Your task to perform on an android device: set the stopwatch Image 0: 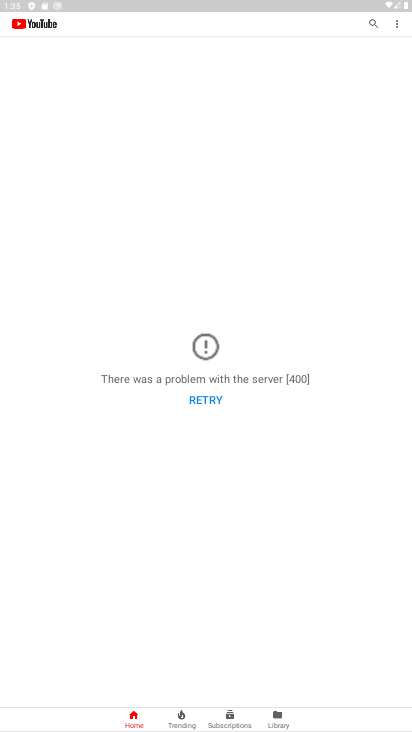
Step 0: press home button
Your task to perform on an android device: set the stopwatch Image 1: 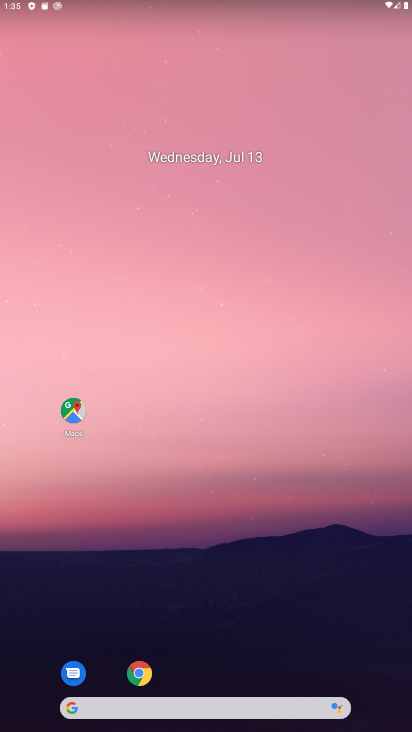
Step 1: drag from (243, 575) to (231, 188)
Your task to perform on an android device: set the stopwatch Image 2: 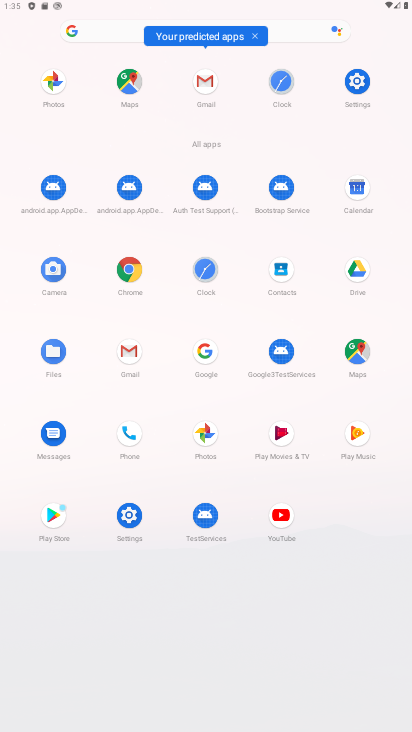
Step 2: click (278, 80)
Your task to perform on an android device: set the stopwatch Image 3: 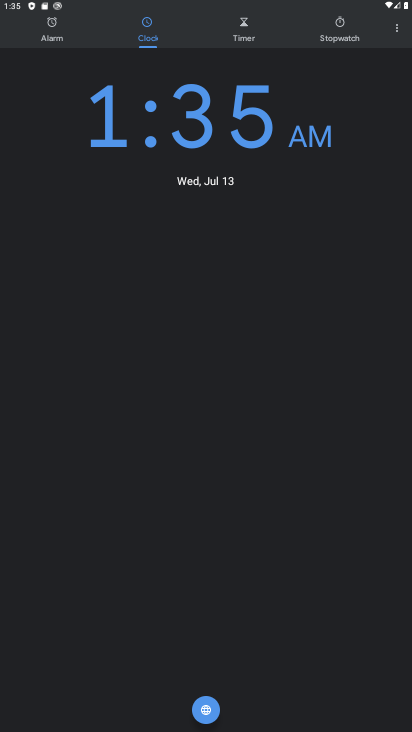
Step 3: click (346, 21)
Your task to perform on an android device: set the stopwatch Image 4: 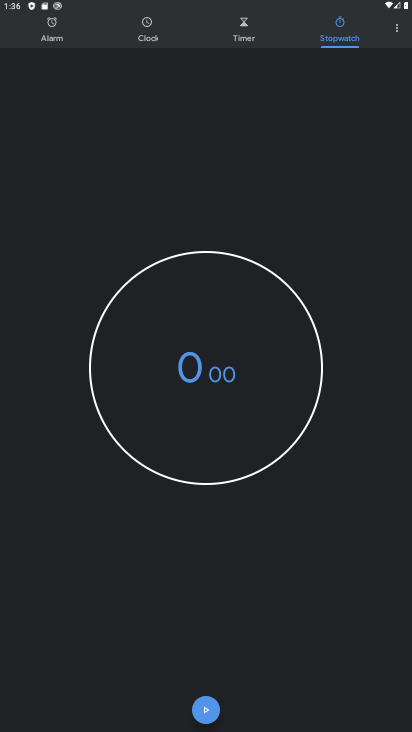
Step 4: task complete